Your task to perform on an android device: toggle notification dots Image 0: 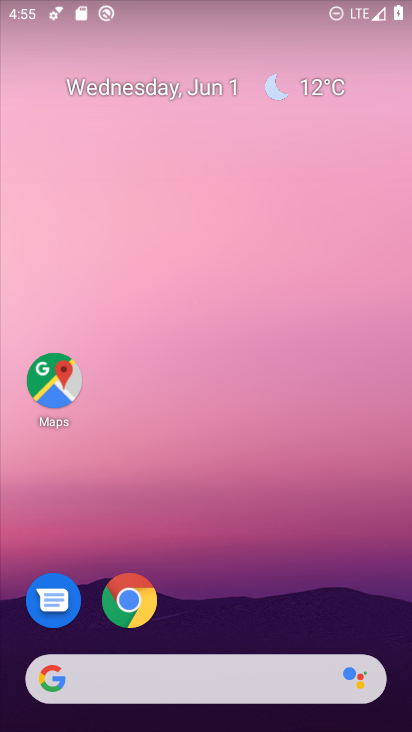
Step 0: drag from (387, 630) to (283, 174)
Your task to perform on an android device: toggle notification dots Image 1: 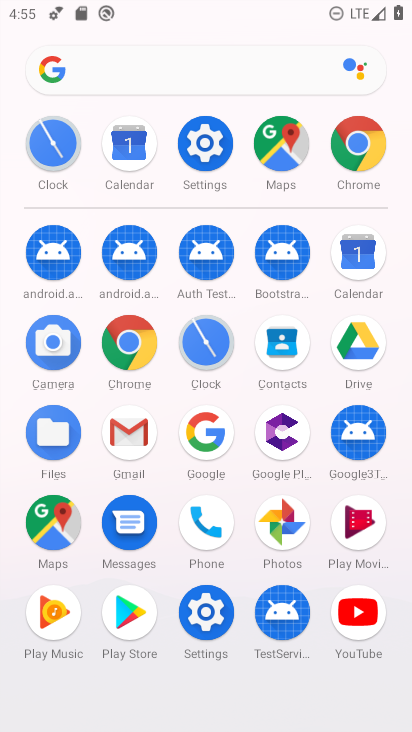
Step 1: click (203, 614)
Your task to perform on an android device: toggle notification dots Image 2: 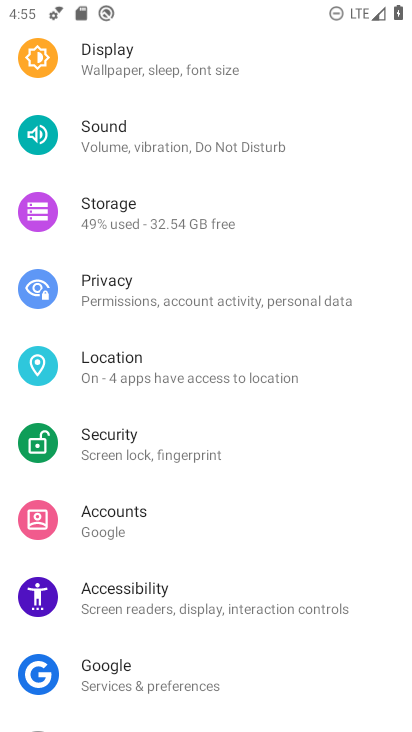
Step 2: drag from (365, 186) to (358, 487)
Your task to perform on an android device: toggle notification dots Image 3: 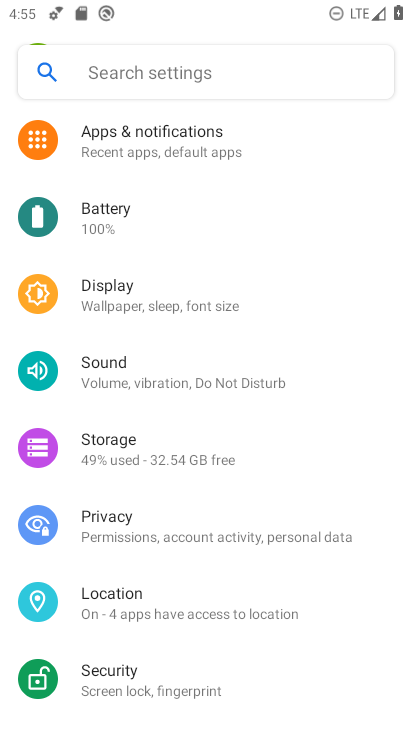
Step 3: click (133, 138)
Your task to perform on an android device: toggle notification dots Image 4: 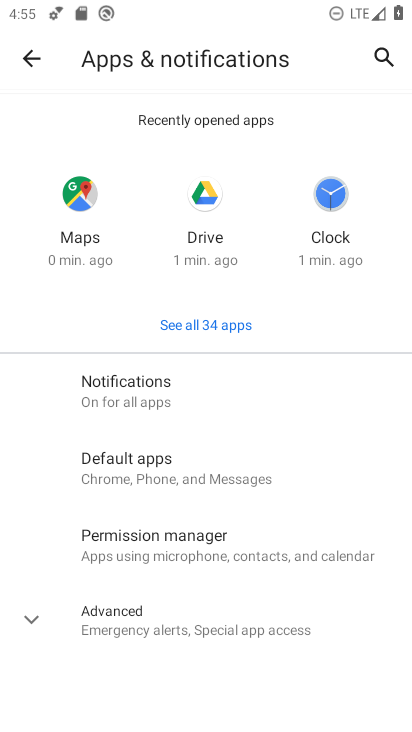
Step 4: click (125, 401)
Your task to perform on an android device: toggle notification dots Image 5: 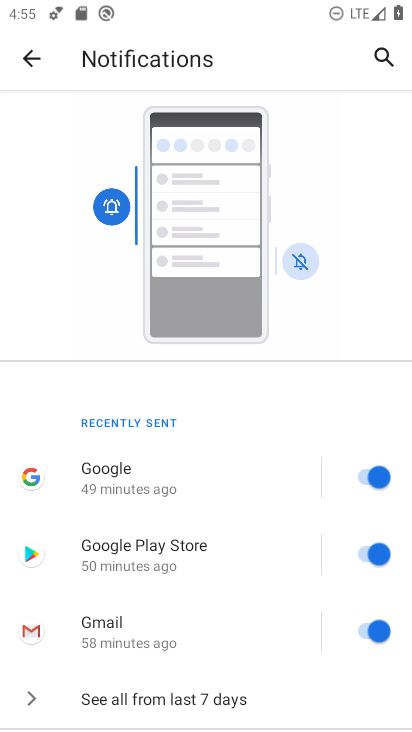
Step 5: drag from (297, 642) to (282, 170)
Your task to perform on an android device: toggle notification dots Image 6: 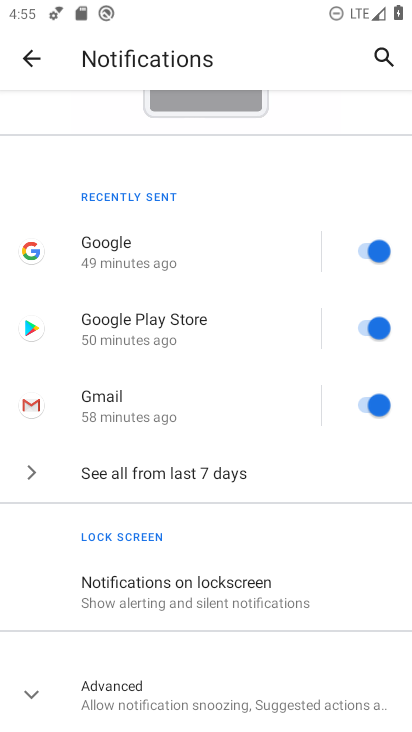
Step 6: click (104, 703)
Your task to perform on an android device: toggle notification dots Image 7: 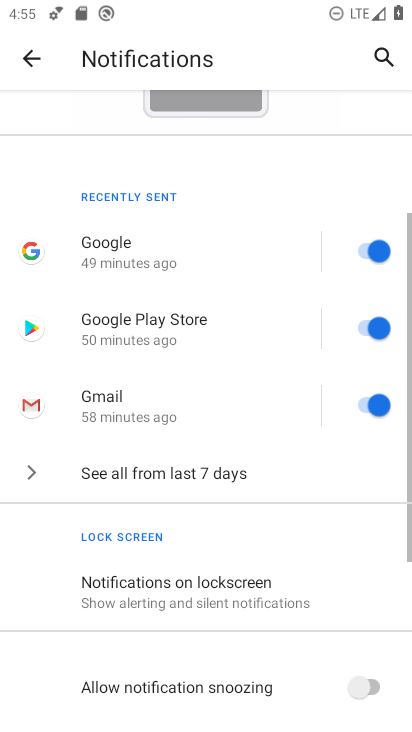
Step 7: drag from (257, 678) to (285, 316)
Your task to perform on an android device: toggle notification dots Image 8: 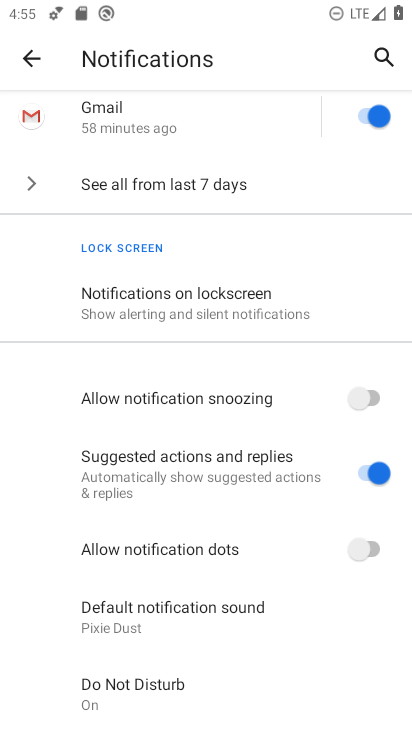
Step 8: click (374, 543)
Your task to perform on an android device: toggle notification dots Image 9: 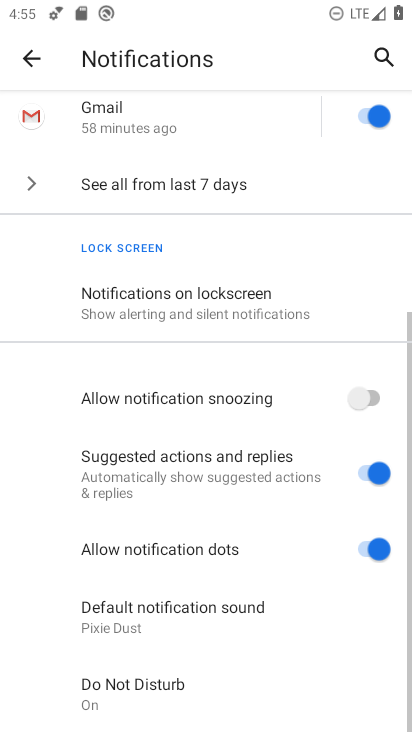
Step 9: task complete